Your task to perform on an android device: change timer sound Image 0: 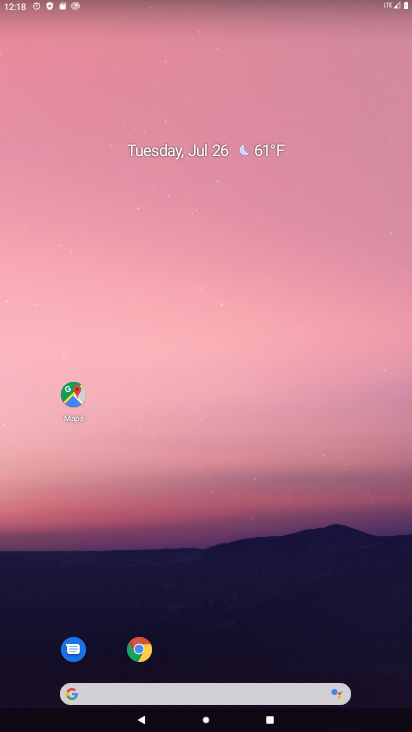
Step 0: drag from (194, 503) to (191, 157)
Your task to perform on an android device: change timer sound Image 1: 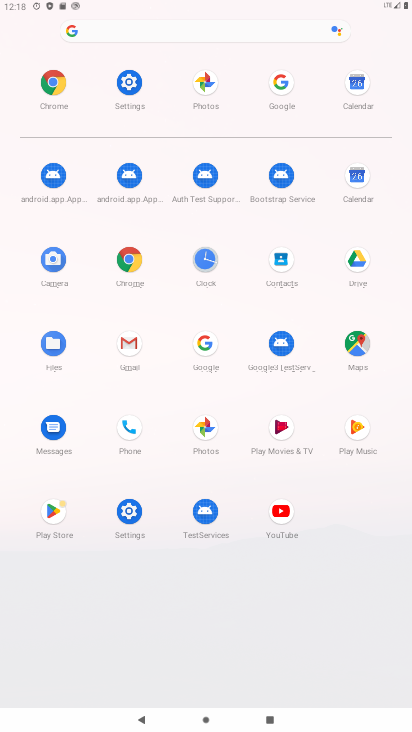
Step 1: click (126, 73)
Your task to perform on an android device: change timer sound Image 2: 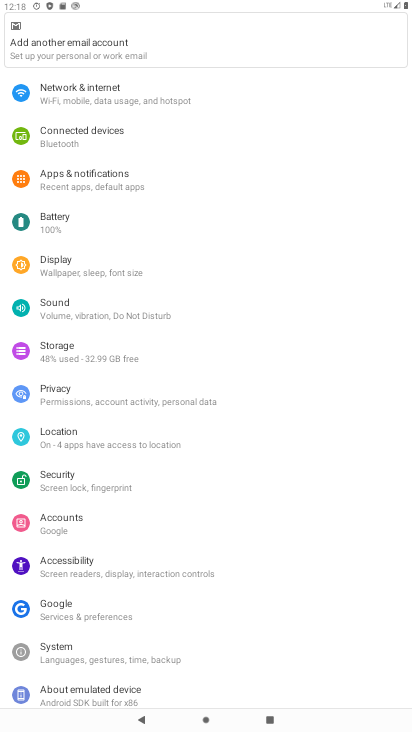
Step 2: click (59, 316)
Your task to perform on an android device: change timer sound Image 3: 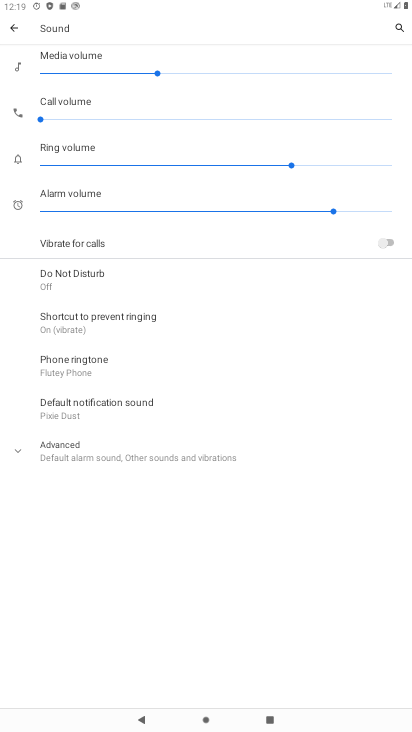
Step 3: task complete